Your task to perform on an android device: turn off location history Image 0: 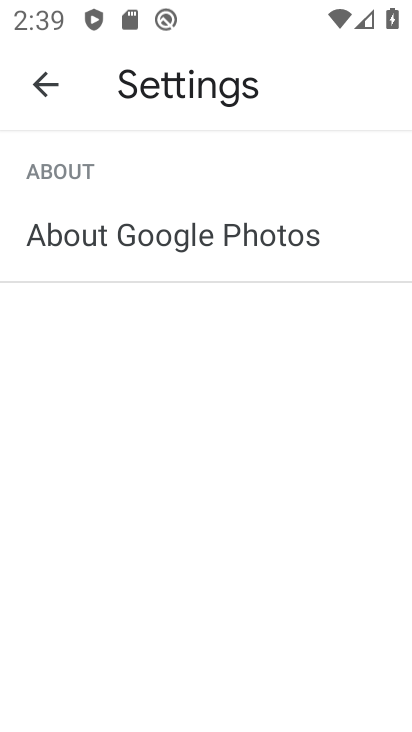
Step 0: press home button
Your task to perform on an android device: turn off location history Image 1: 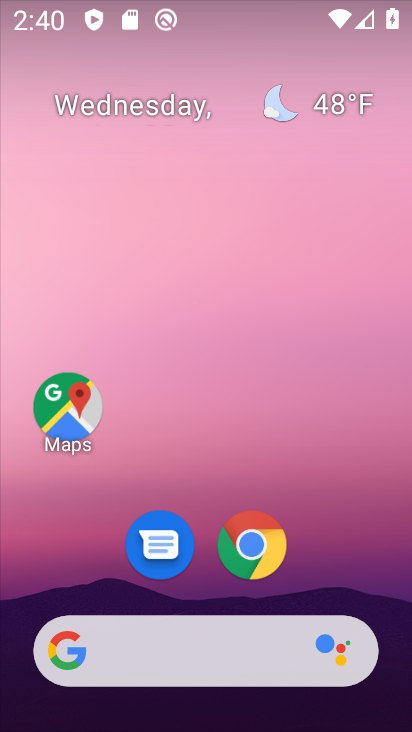
Step 1: drag from (234, 605) to (203, 144)
Your task to perform on an android device: turn off location history Image 2: 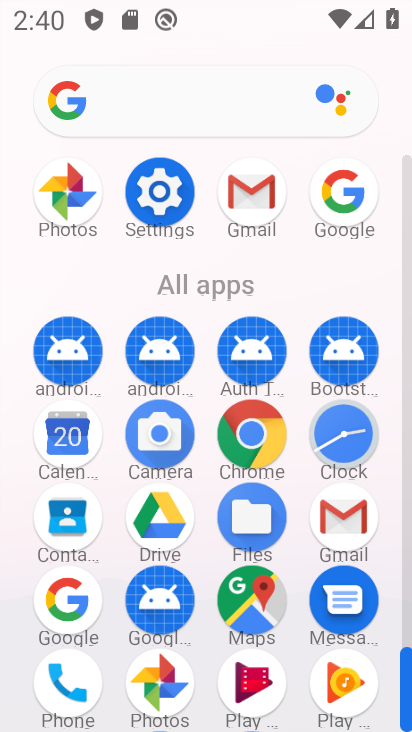
Step 2: click (173, 177)
Your task to perform on an android device: turn off location history Image 3: 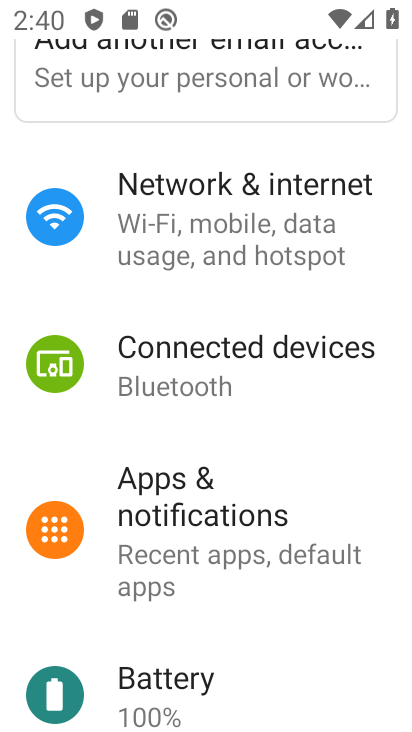
Step 3: drag from (271, 508) to (262, 147)
Your task to perform on an android device: turn off location history Image 4: 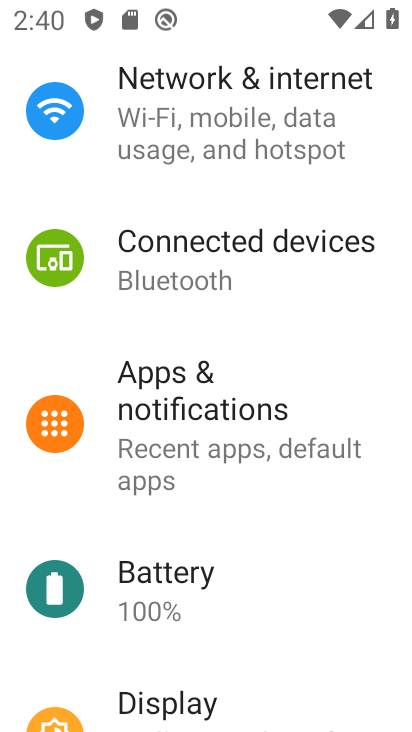
Step 4: drag from (253, 528) to (237, 204)
Your task to perform on an android device: turn off location history Image 5: 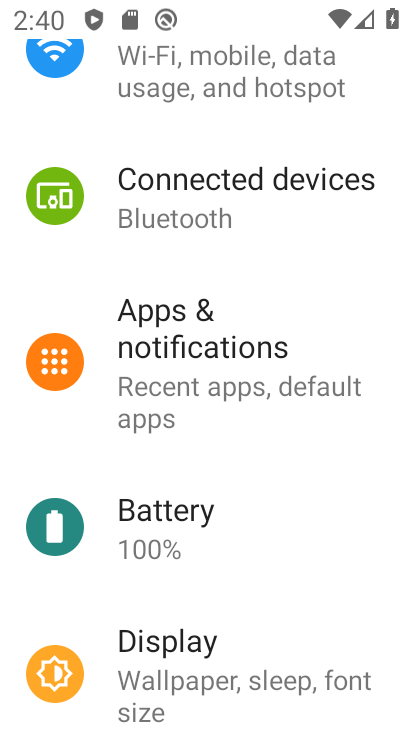
Step 5: drag from (230, 633) to (215, 193)
Your task to perform on an android device: turn off location history Image 6: 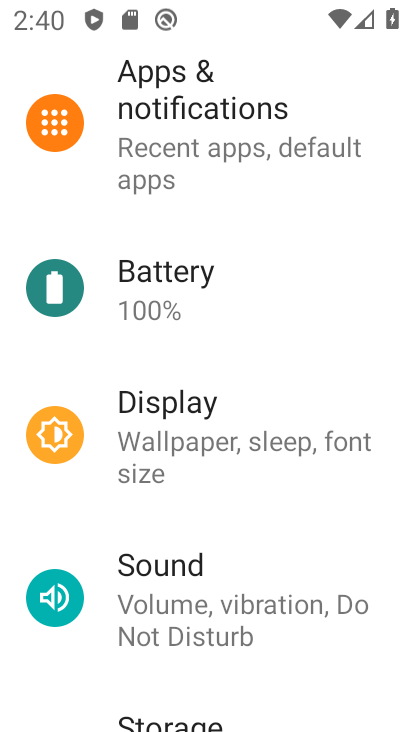
Step 6: drag from (239, 568) to (292, 175)
Your task to perform on an android device: turn off location history Image 7: 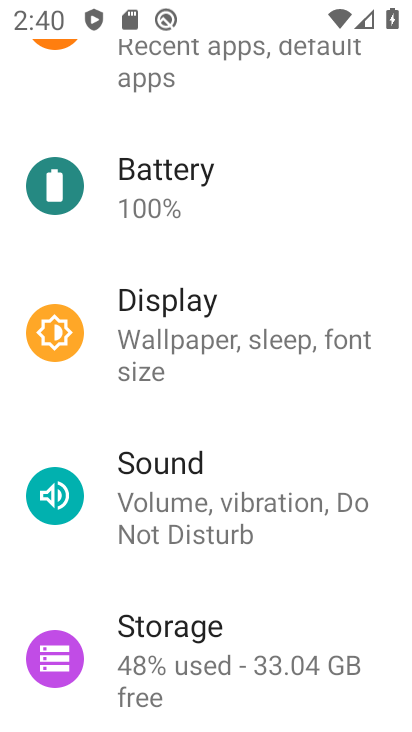
Step 7: drag from (245, 604) to (230, 178)
Your task to perform on an android device: turn off location history Image 8: 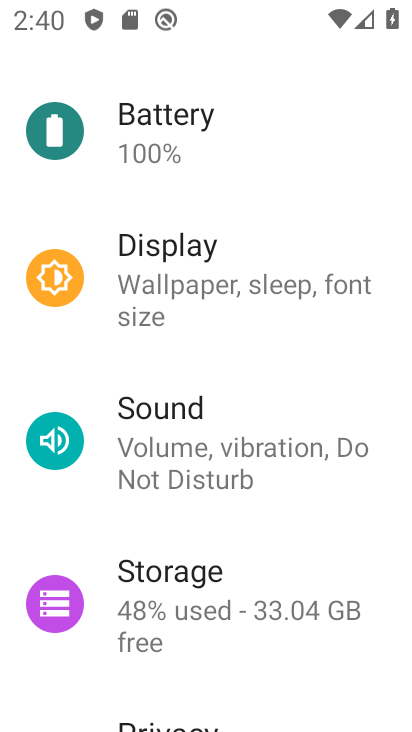
Step 8: drag from (216, 687) to (247, 100)
Your task to perform on an android device: turn off location history Image 9: 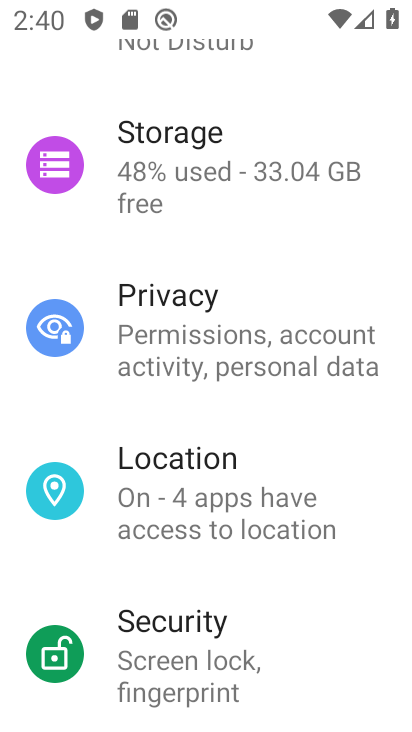
Step 9: click (289, 458)
Your task to perform on an android device: turn off location history Image 10: 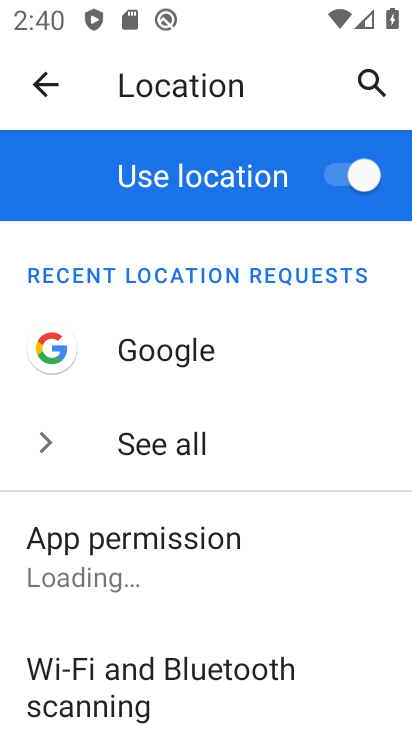
Step 10: drag from (238, 664) to (299, 221)
Your task to perform on an android device: turn off location history Image 11: 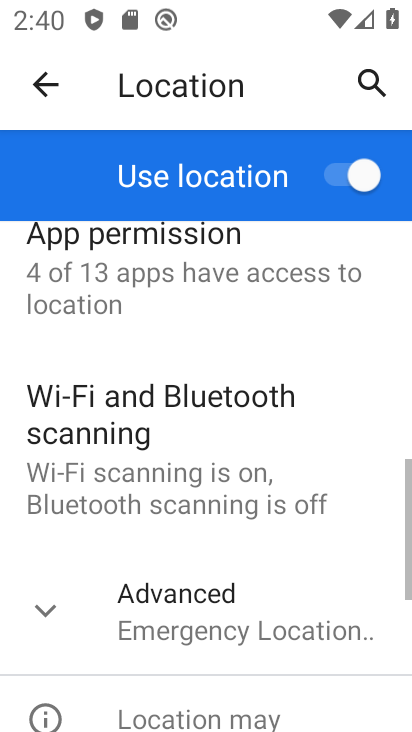
Step 11: click (201, 612)
Your task to perform on an android device: turn off location history Image 12: 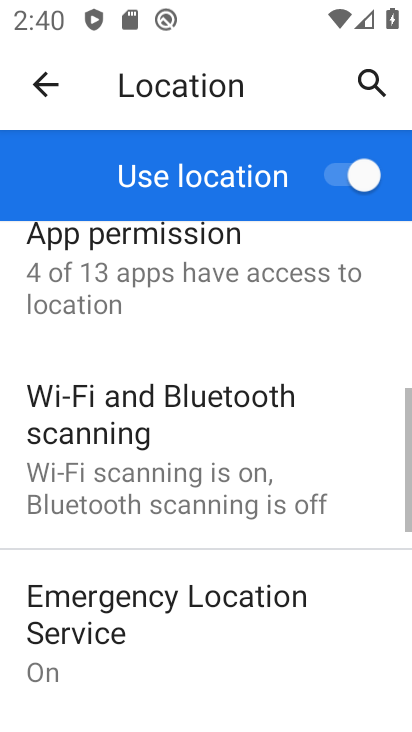
Step 12: drag from (201, 612) to (200, 163)
Your task to perform on an android device: turn off location history Image 13: 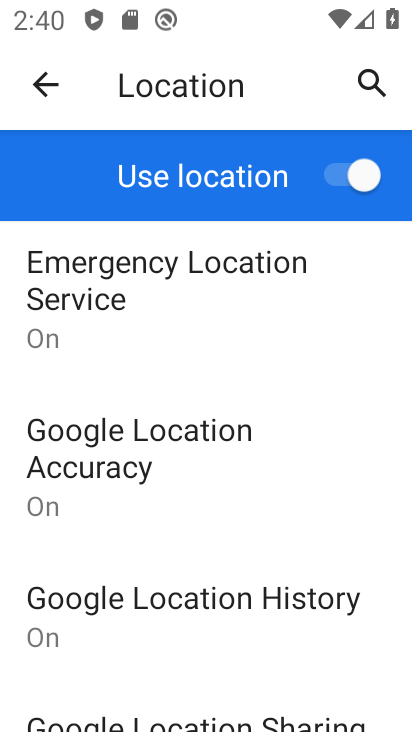
Step 13: click (198, 599)
Your task to perform on an android device: turn off location history Image 14: 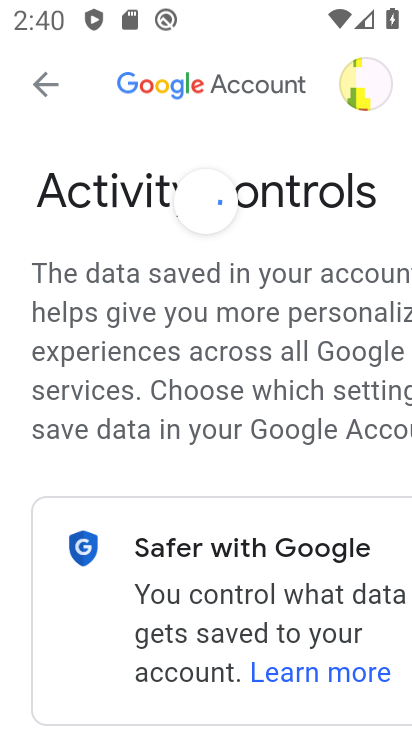
Step 14: drag from (267, 596) to (279, 66)
Your task to perform on an android device: turn off location history Image 15: 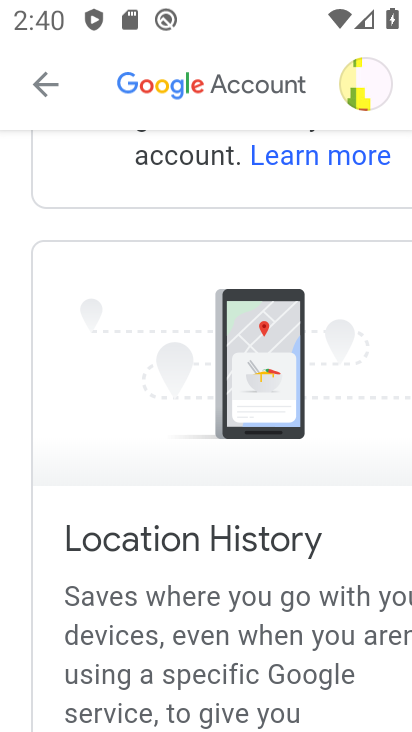
Step 15: drag from (234, 578) to (237, 50)
Your task to perform on an android device: turn off location history Image 16: 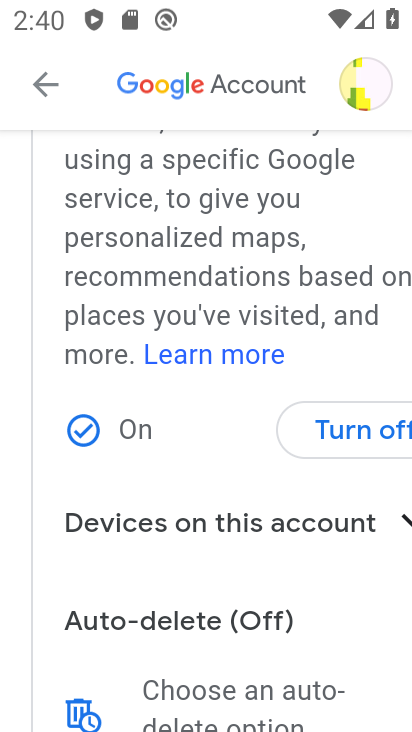
Step 16: click (335, 433)
Your task to perform on an android device: turn off location history Image 17: 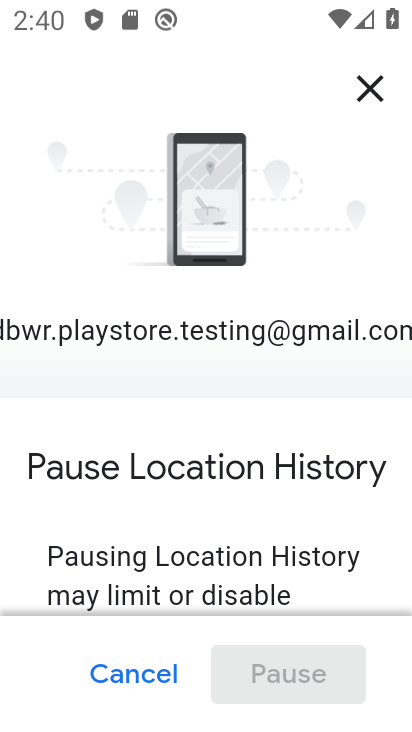
Step 17: click (283, 603)
Your task to perform on an android device: turn off location history Image 18: 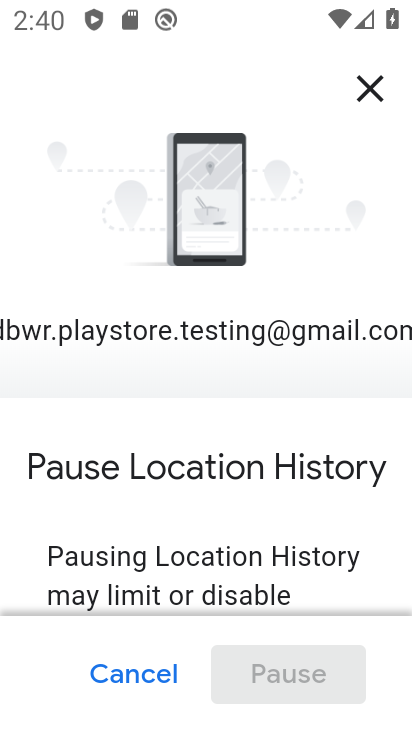
Step 18: drag from (290, 595) to (277, 197)
Your task to perform on an android device: turn off location history Image 19: 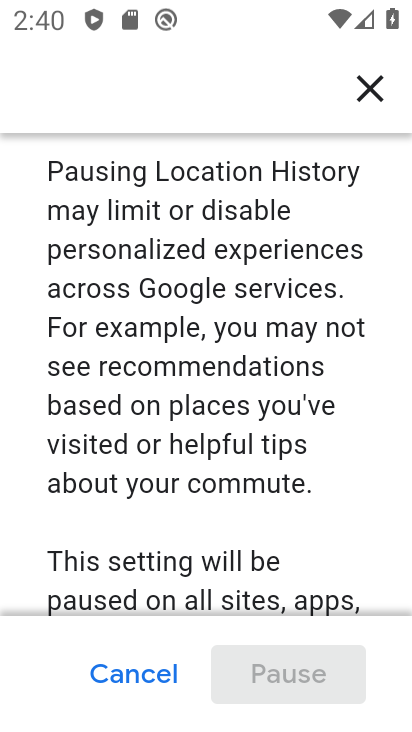
Step 19: drag from (258, 616) to (258, 156)
Your task to perform on an android device: turn off location history Image 20: 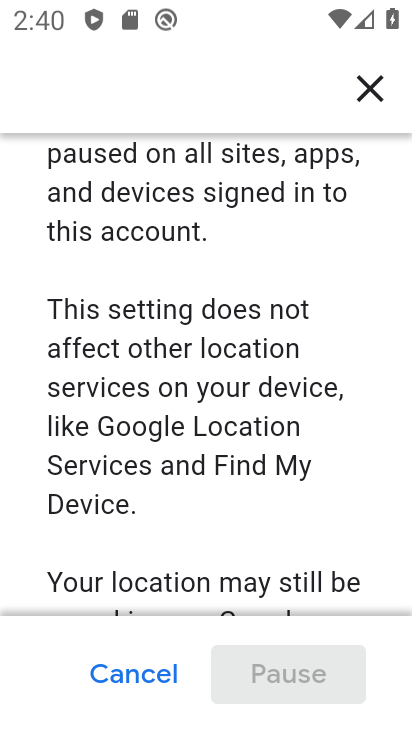
Step 20: drag from (356, 560) to (282, 33)
Your task to perform on an android device: turn off location history Image 21: 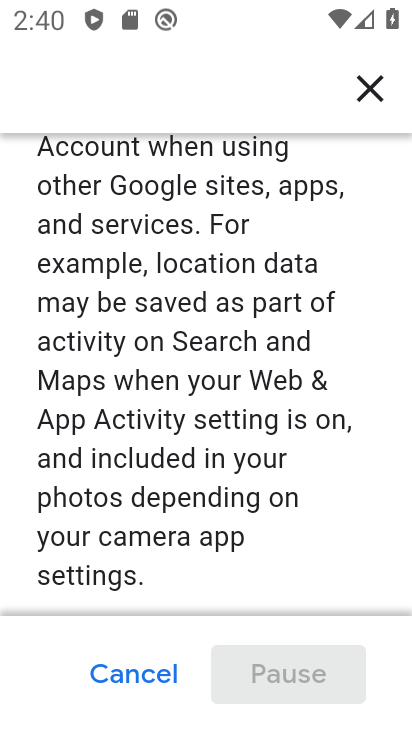
Step 21: drag from (250, 473) to (234, 48)
Your task to perform on an android device: turn off location history Image 22: 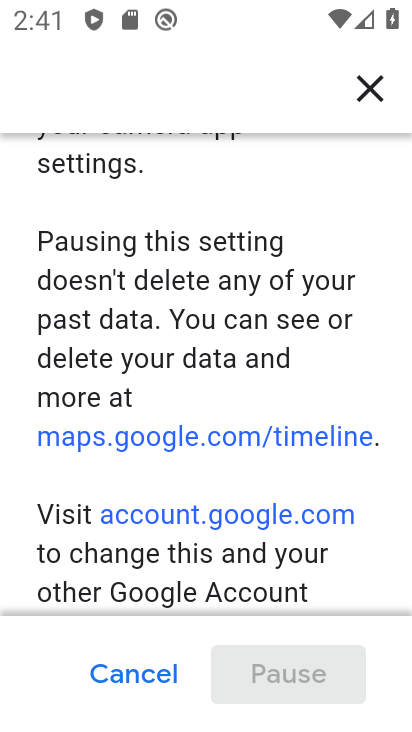
Step 22: drag from (294, 559) to (297, 9)
Your task to perform on an android device: turn off location history Image 23: 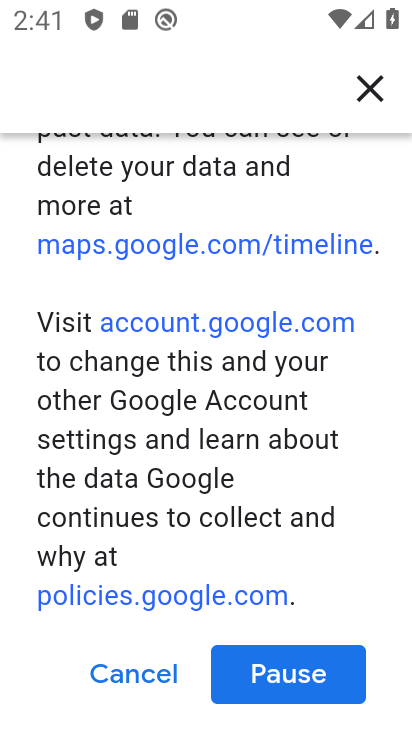
Step 23: click (295, 667)
Your task to perform on an android device: turn off location history Image 24: 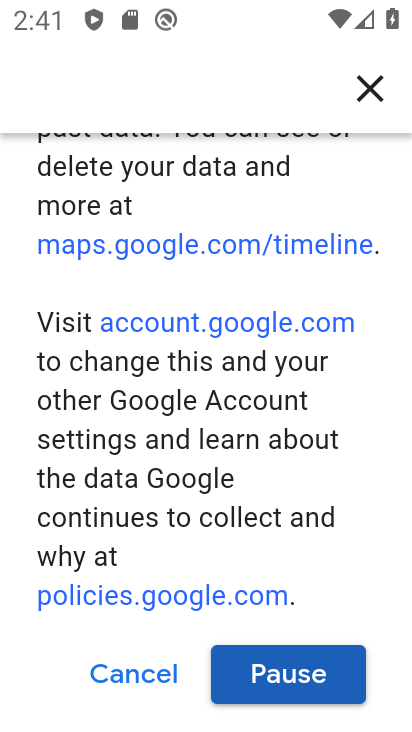
Step 24: click (301, 680)
Your task to perform on an android device: turn off location history Image 25: 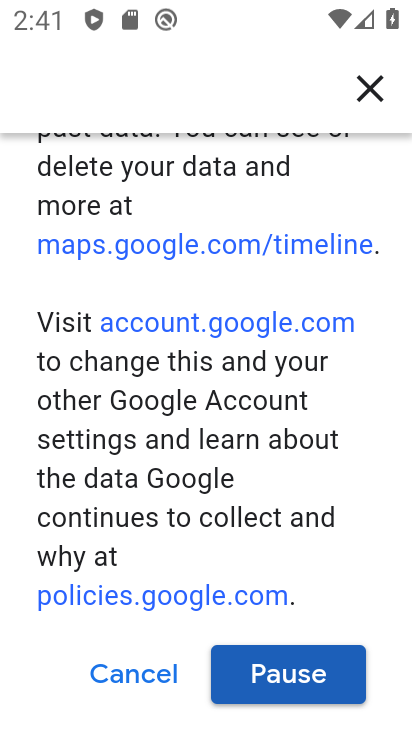
Step 25: click (308, 673)
Your task to perform on an android device: turn off location history Image 26: 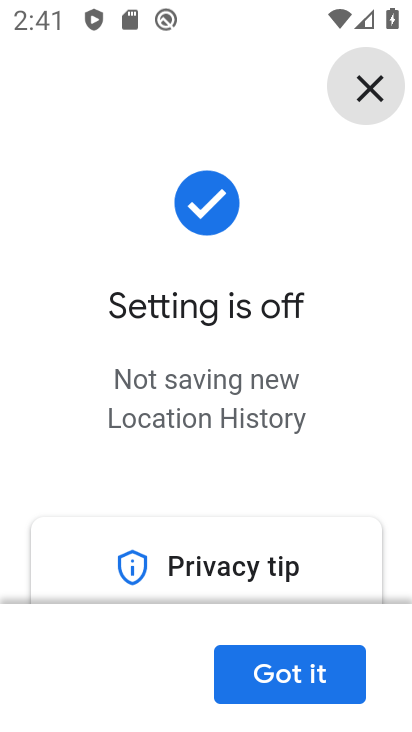
Step 26: click (316, 682)
Your task to perform on an android device: turn off location history Image 27: 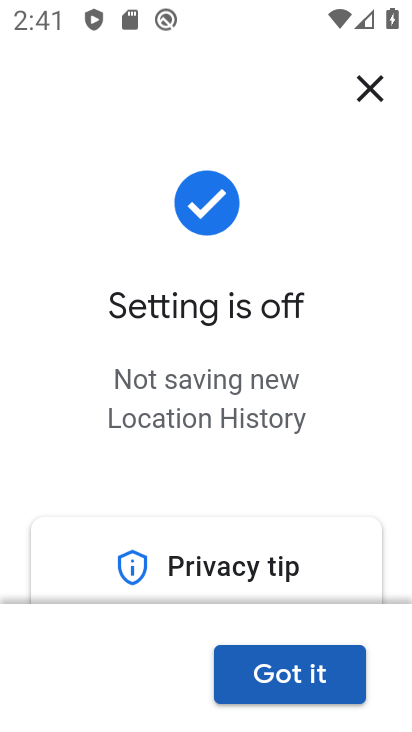
Step 27: click (297, 696)
Your task to perform on an android device: turn off location history Image 28: 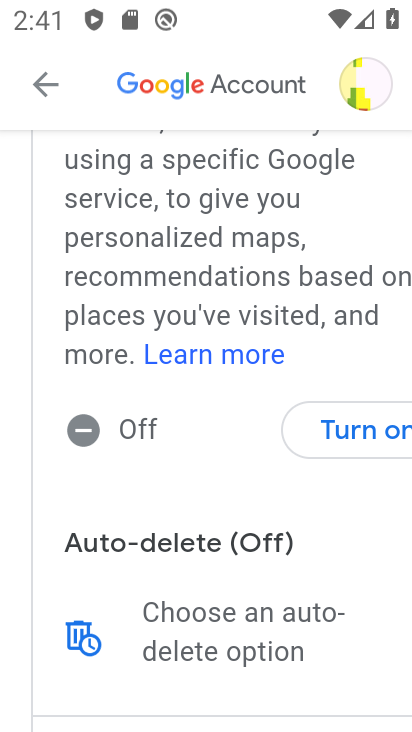
Step 28: task complete